Your task to perform on an android device: View the shopping cart on newegg.com. Search for "logitech g502" on newegg.com, select the first entry, add it to the cart, then select checkout. Image 0: 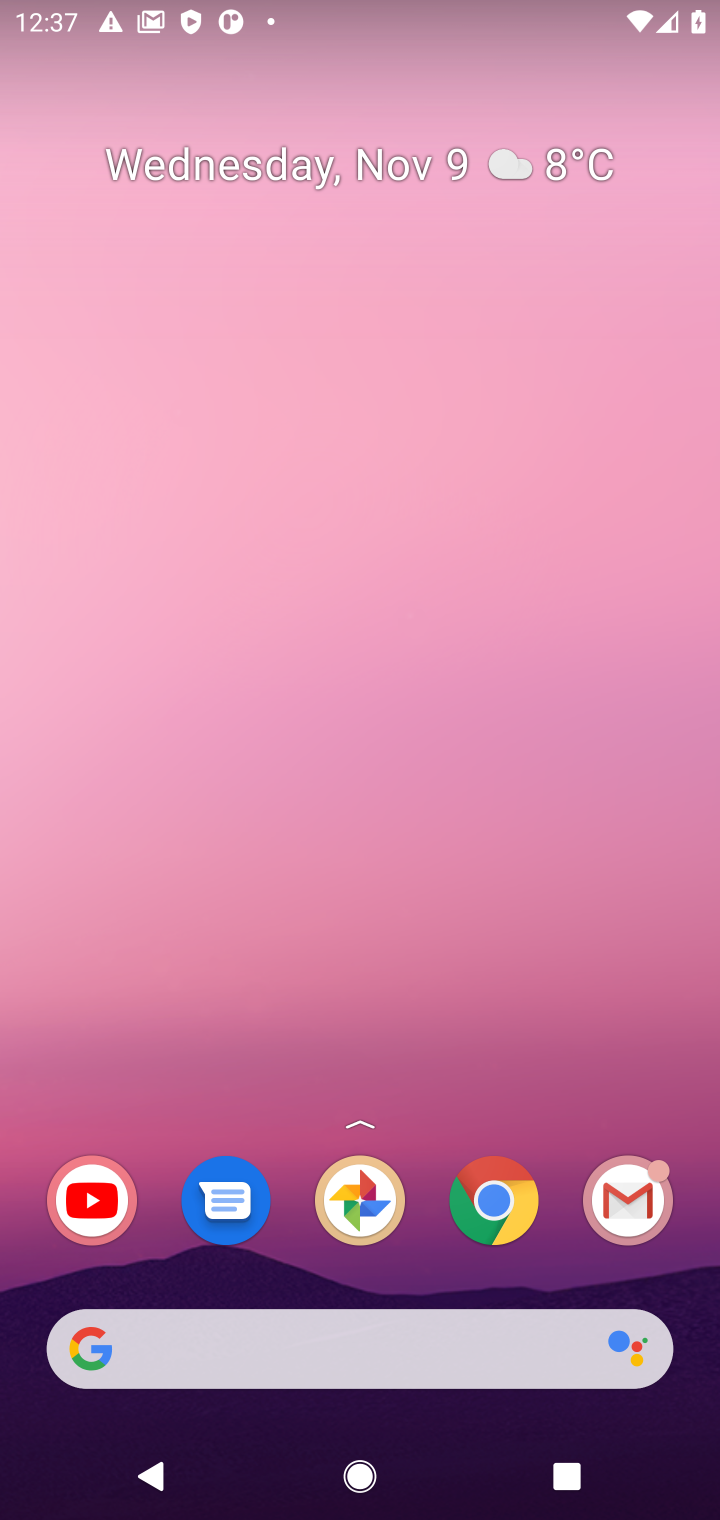
Step 0: click (364, 1363)
Your task to perform on an android device: View the shopping cart on newegg.com. Search for "logitech g502" on newegg.com, select the first entry, add it to the cart, then select checkout. Image 1: 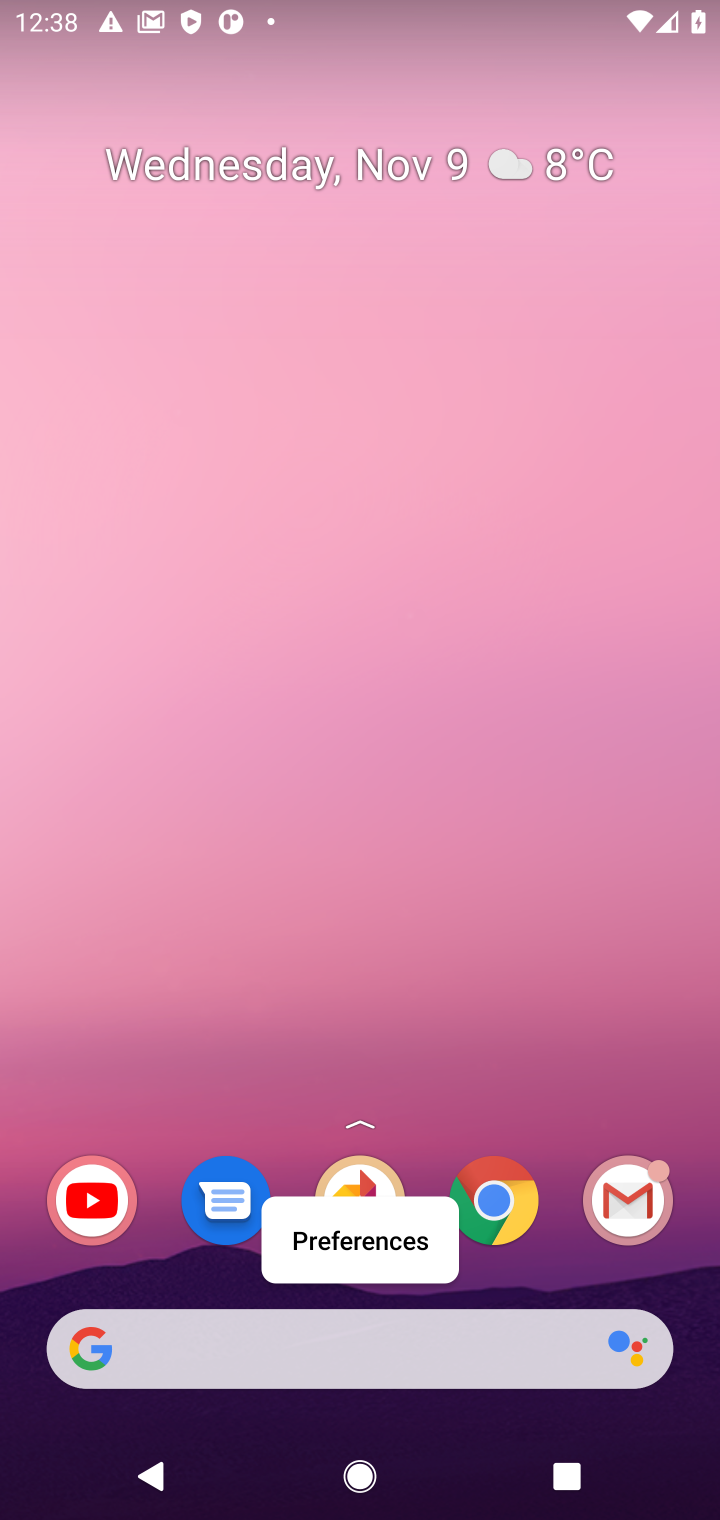
Step 1: click (472, 1365)
Your task to perform on an android device: View the shopping cart on newegg.com. Search for "logitech g502" on newegg.com, select the first entry, add it to the cart, then select checkout. Image 2: 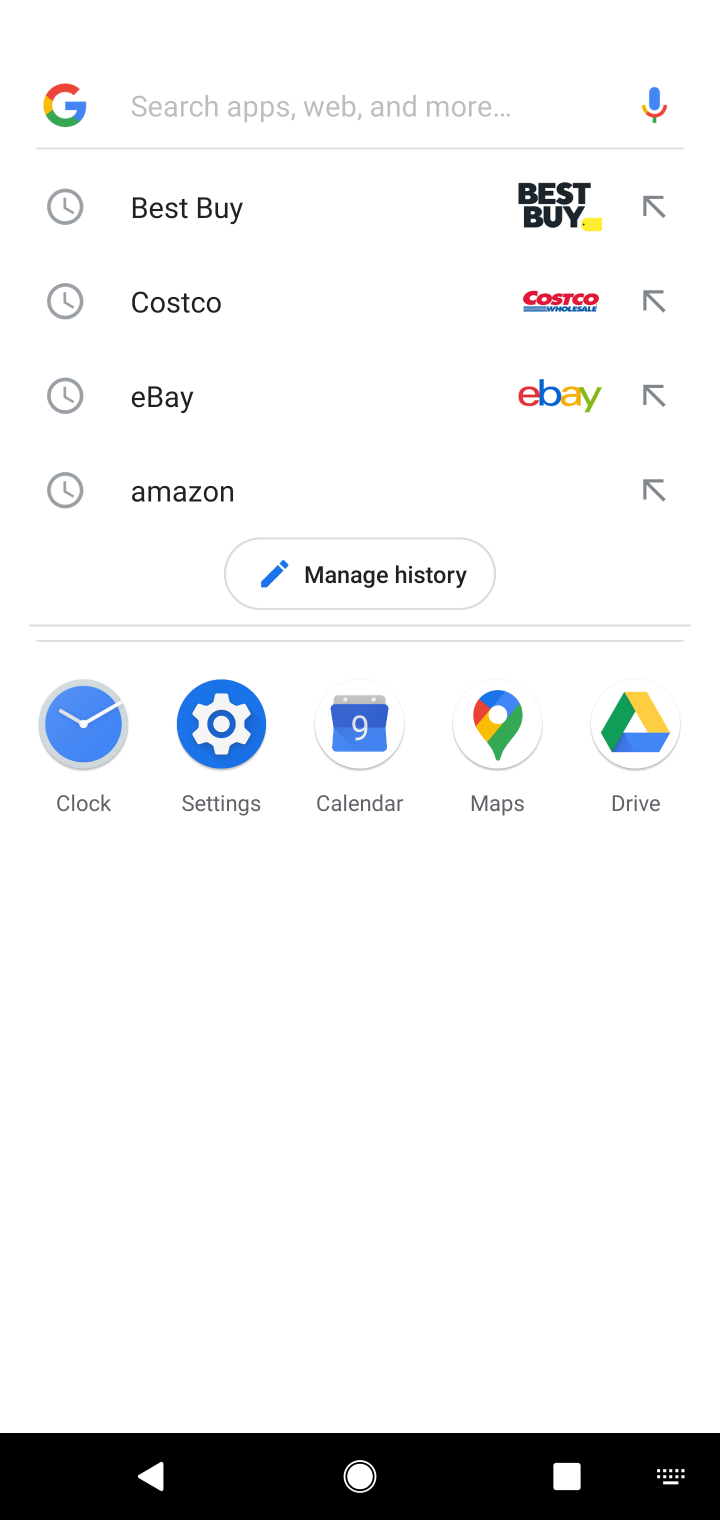
Step 2: type "newegg"
Your task to perform on an android device: View the shopping cart on newegg.com. Search for "logitech g502" on newegg.com, select the first entry, add it to the cart, then select checkout. Image 3: 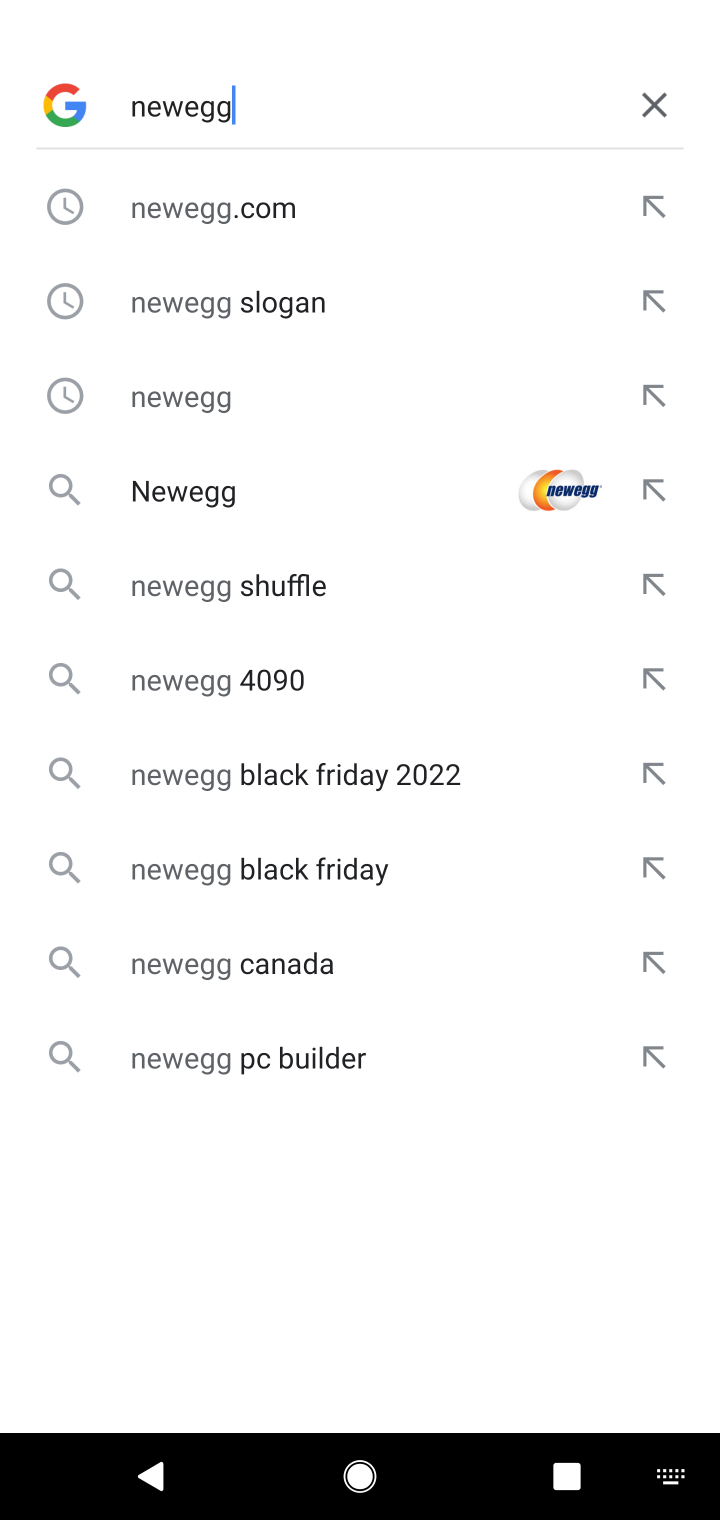
Step 3: click (253, 219)
Your task to perform on an android device: View the shopping cart on newegg.com. Search for "logitech g502" on newegg.com, select the first entry, add it to the cart, then select checkout. Image 4: 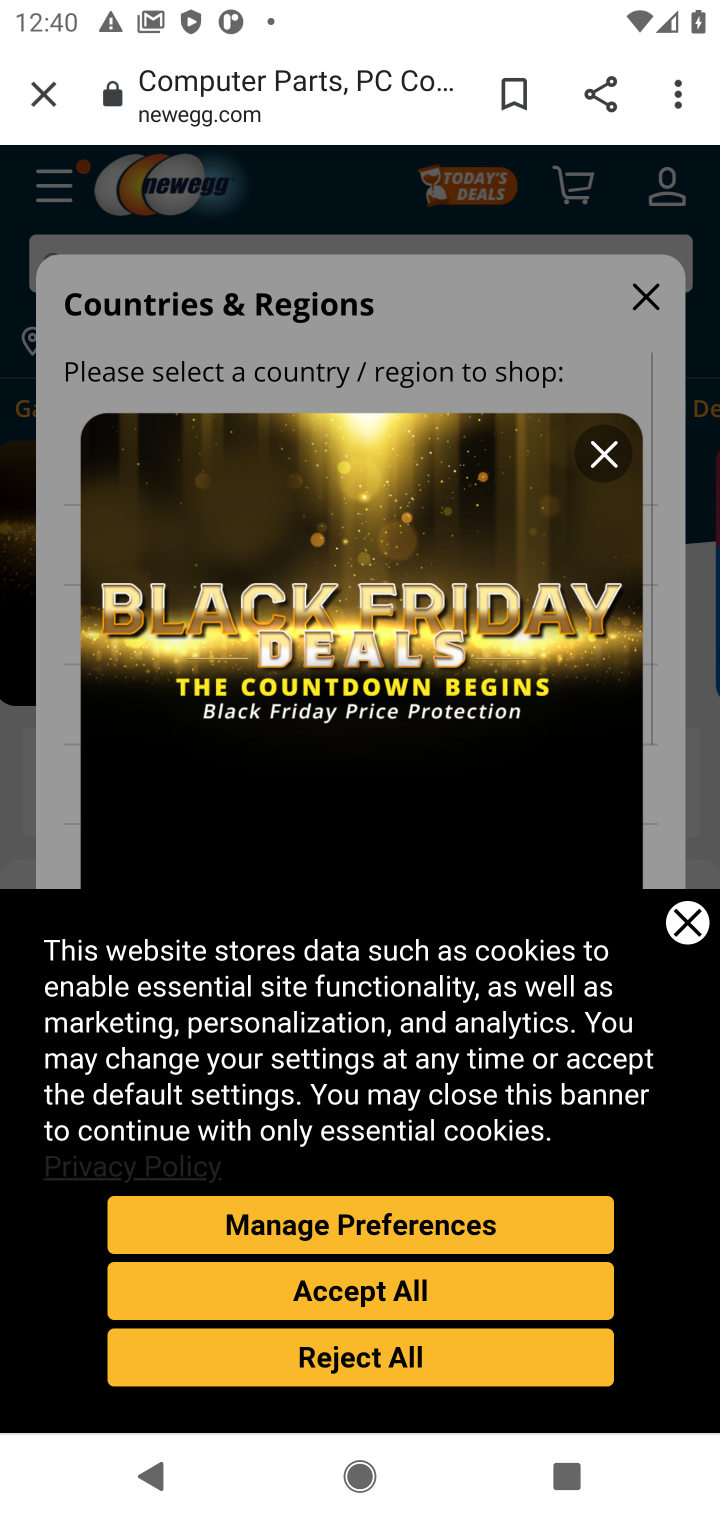
Step 4: task complete